Your task to perform on an android device: Show me popular games on the Play Store Image 0: 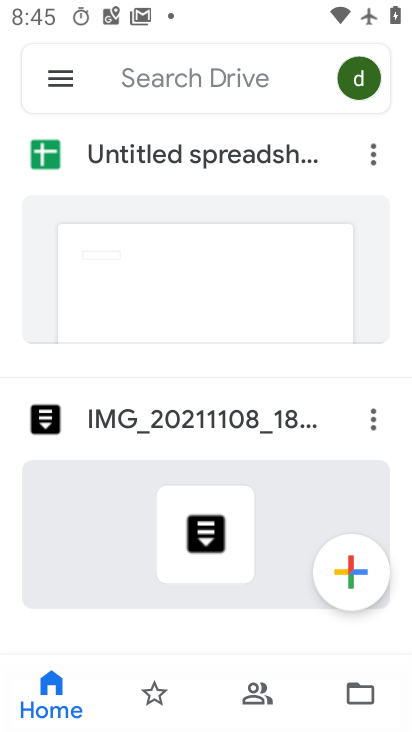
Step 0: press home button
Your task to perform on an android device: Show me popular games on the Play Store Image 1: 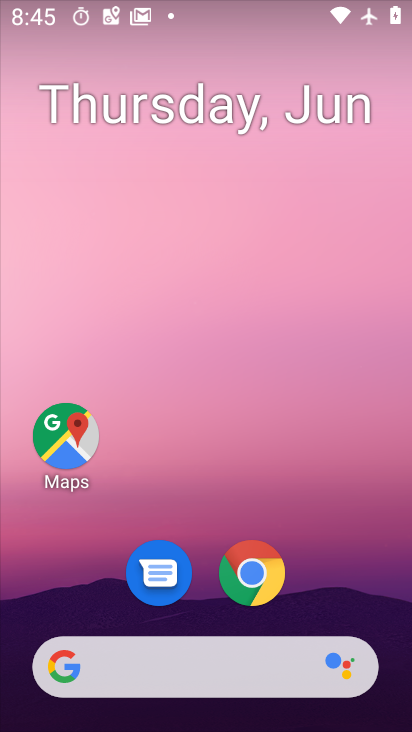
Step 1: drag from (196, 602) to (239, 267)
Your task to perform on an android device: Show me popular games on the Play Store Image 2: 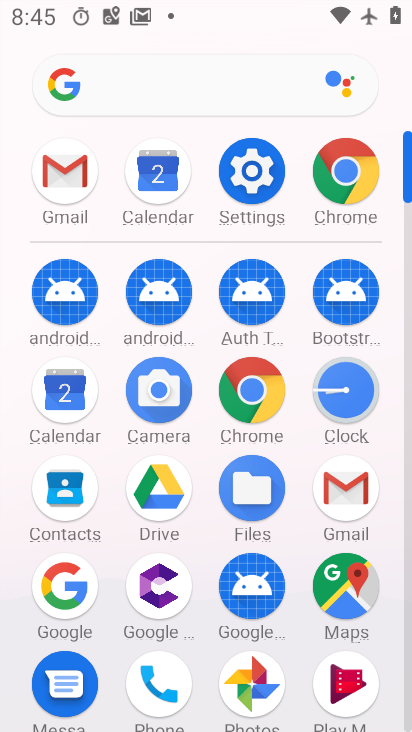
Step 2: drag from (182, 596) to (217, 380)
Your task to perform on an android device: Show me popular games on the Play Store Image 3: 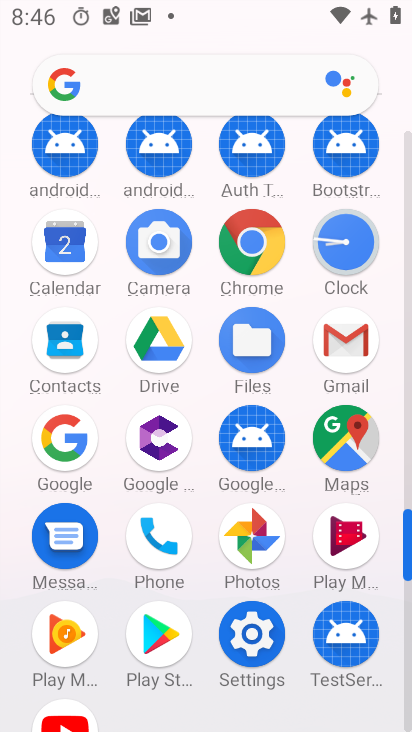
Step 3: click (161, 639)
Your task to perform on an android device: Show me popular games on the Play Store Image 4: 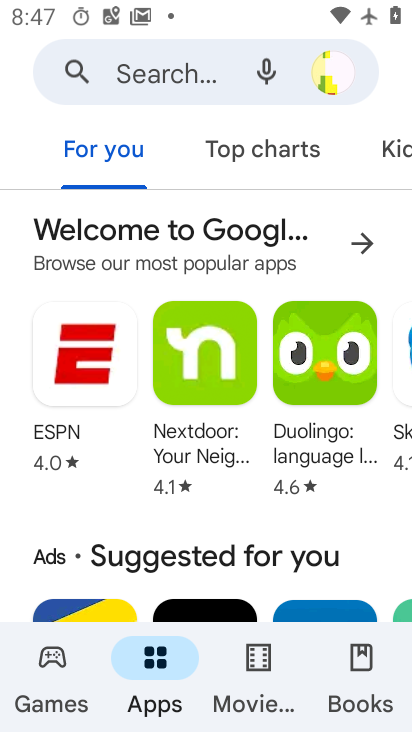
Step 4: task complete